Your task to perform on an android device: turn notification dots on Image 0: 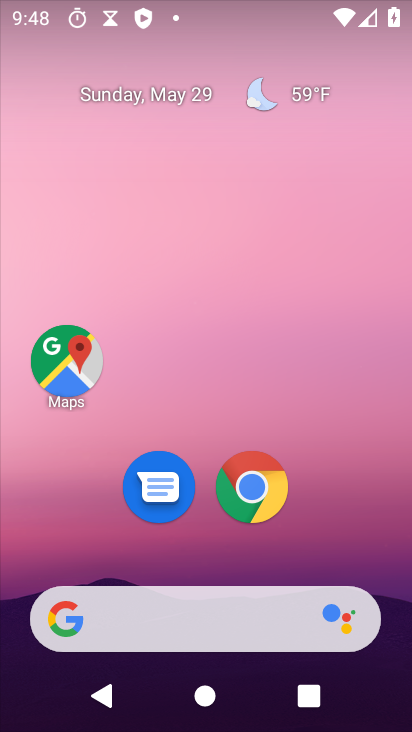
Step 0: drag from (316, 544) to (220, 111)
Your task to perform on an android device: turn notification dots on Image 1: 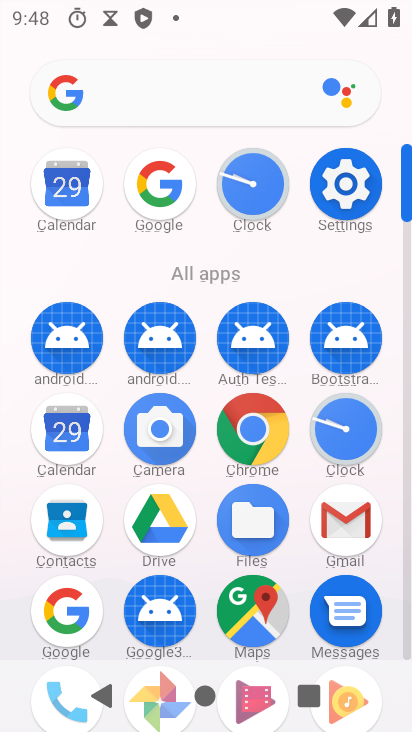
Step 1: click (348, 183)
Your task to perform on an android device: turn notification dots on Image 2: 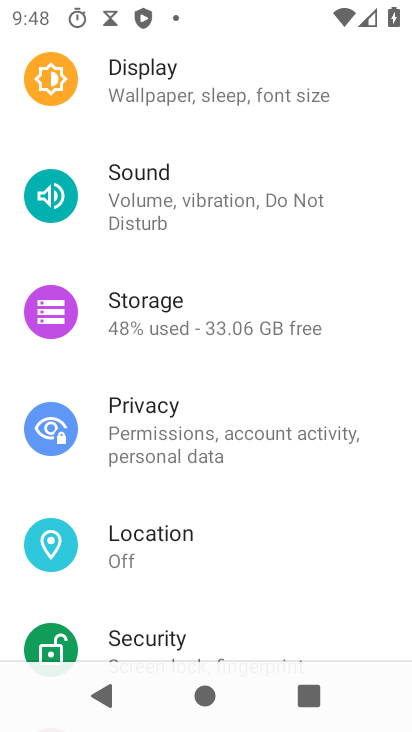
Step 2: drag from (227, 180) to (217, 272)
Your task to perform on an android device: turn notification dots on Image 3: 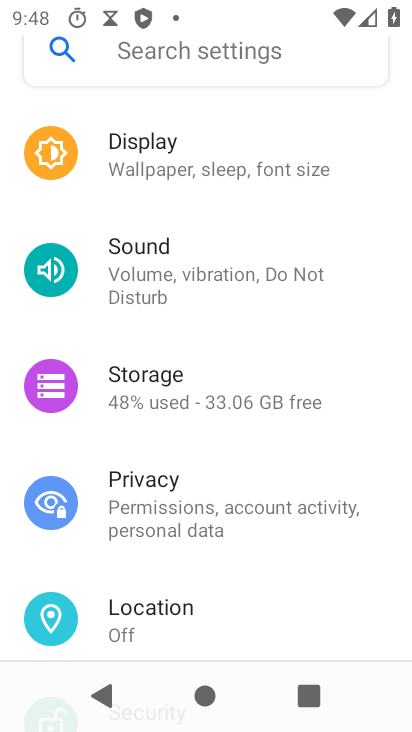
Step 3: drag from (234, 137) to (243, 293)
Your task to perform on an android device: turn notification dots on Image 4: 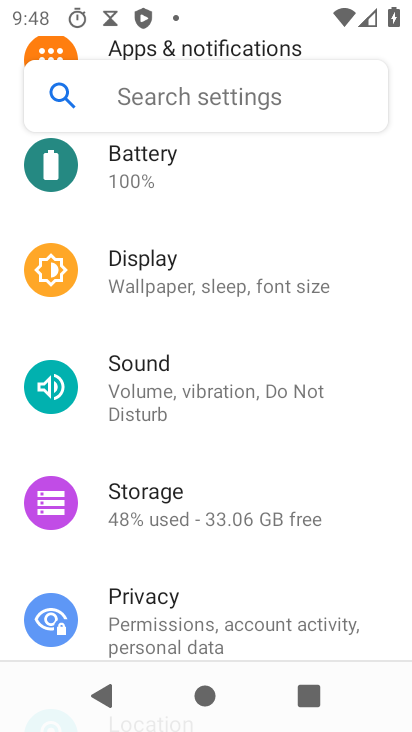
Step 4: drag from (239, 204) to (260, 318)
Your task to perform on an android device: turn notification dots on Image 5: 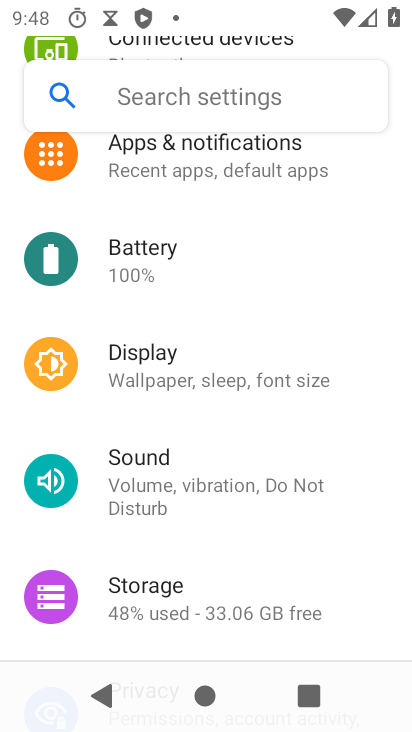
Step 5: drag from (238, 210) to (226, 364)
Your task to perform on an android device: turn notification dots on Image 6: 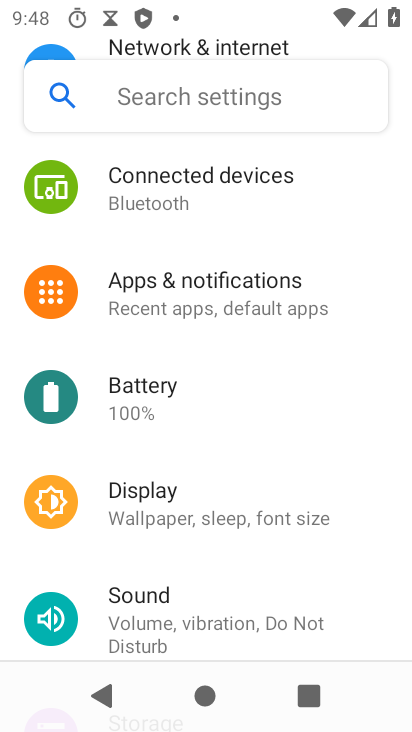
Step 6: click (247, 288)
Your task to perform on an android device: turn notification dots on Image 7: 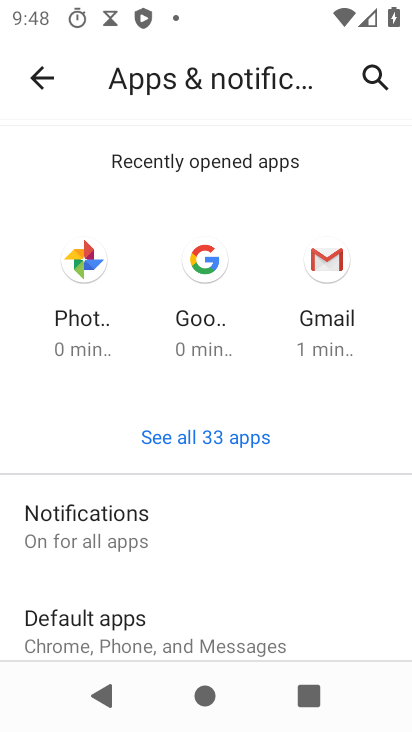
Step 7: drag from (224, 531) to (302, 396)
Your task to perform on an android device: turn notification dots on Image 8: 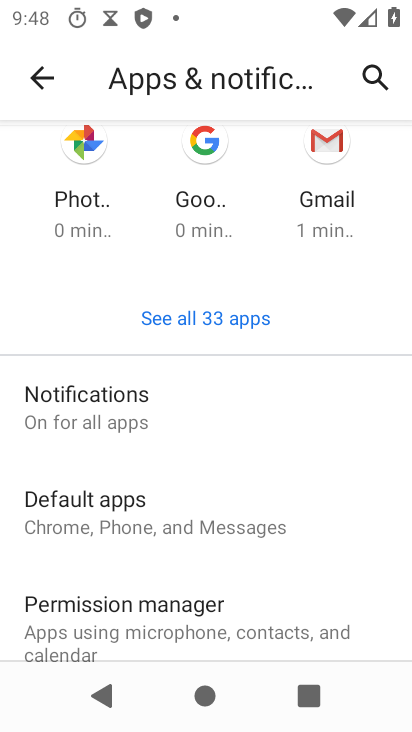
Step 8: click (95, 404)
Your task to perform on an android device: turn notification dots on Image 9: 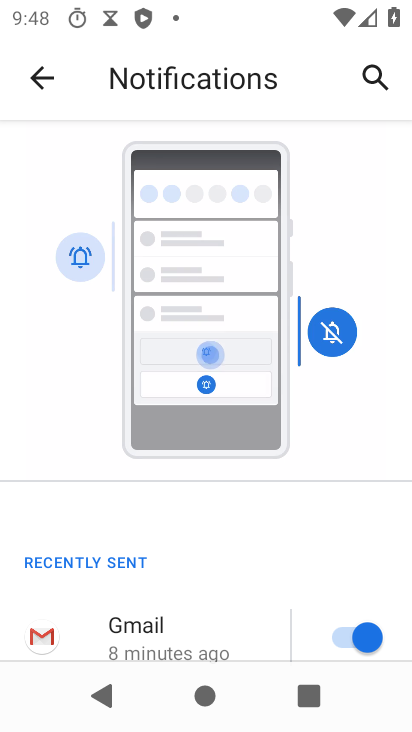
Step 9: drag from (200, 584) to (240, 442)
Your task to perform on an android device: turn notification dots on Image 10: 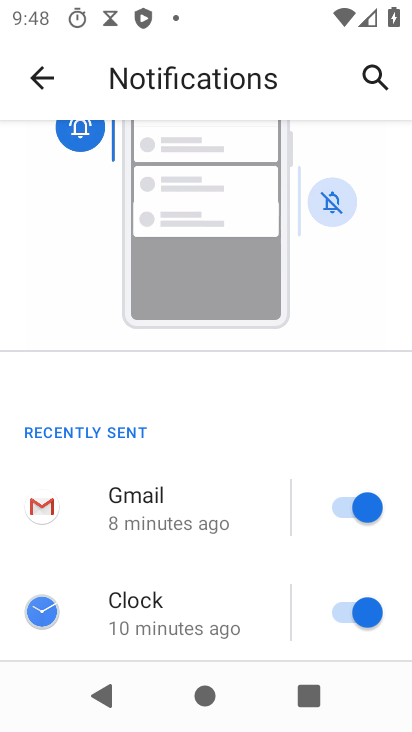
Step 10: drag from (193, 589) to (262, 400)
Your task to perform on an android device: turn notification dots on Image 11: 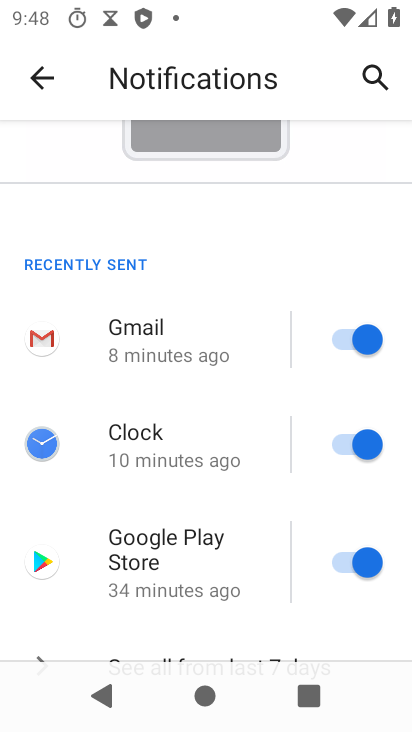
Step 11: drag from (157, 633) to (229, 466)
Your task to perform on an android device: turn notification dots on Image 12: 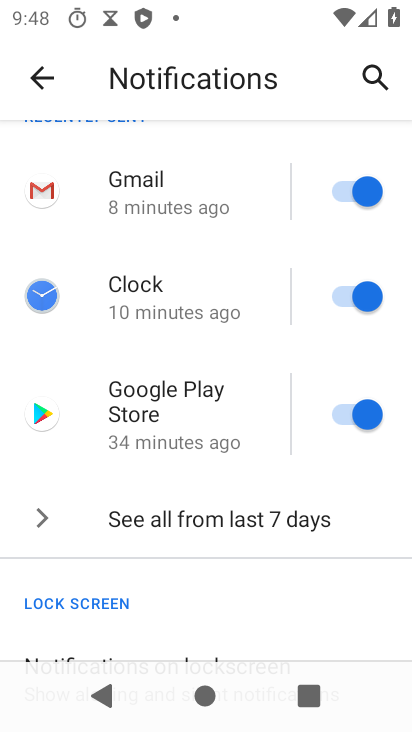
Step 12: drag from (161, 619) to (255, 454)
Your task to perform on an android device: turn notification dots on Image 13: 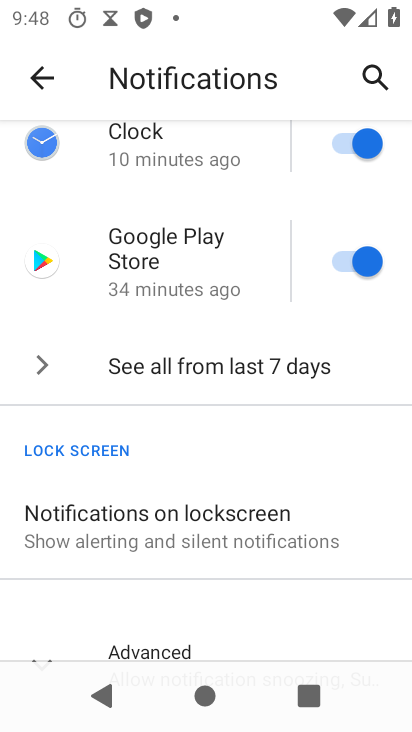
Step 13: drag from (151, 602) to (250, 451)
Your task to perform on an android device: turn notification dots on Image 14: 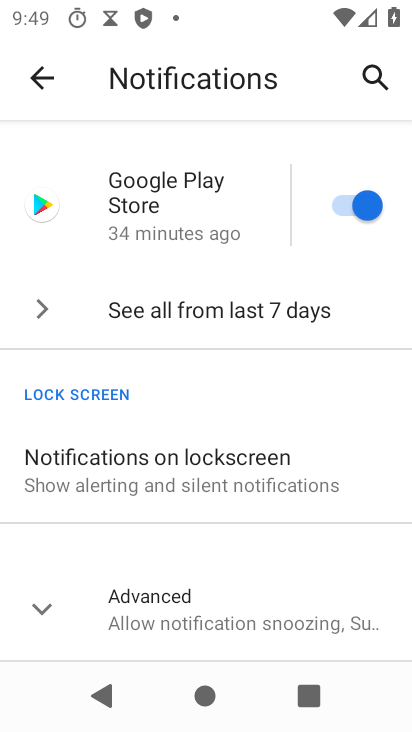
Step 14: click (188, 627)
Your task to perform on an android device: turn notification dots on Image 15: 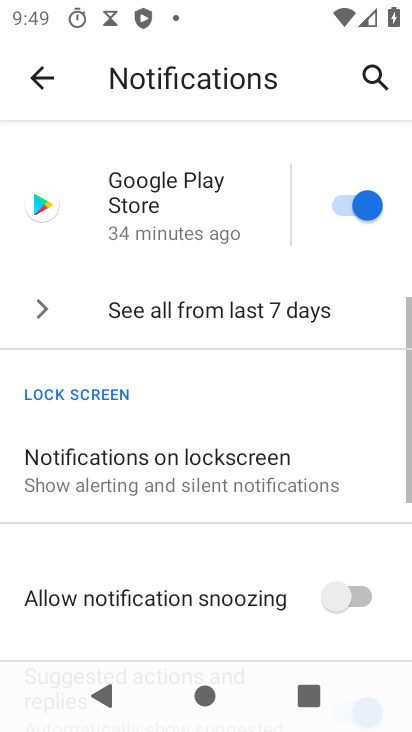
Step 15: task complete